Your task to perform on an android device: Go to Reddit.com Image 0: 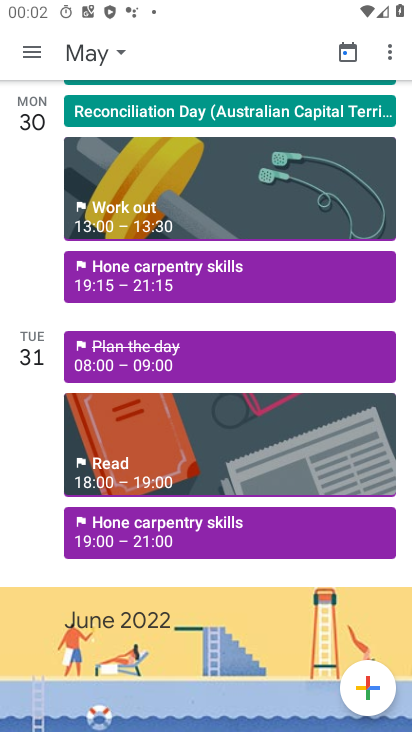
Step 0: press home button
Your task to perform on an android device: Go to Reddit.com Image 1: 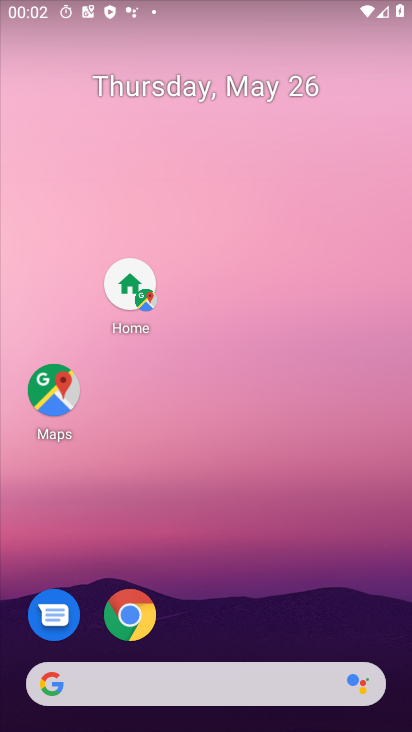
Step 1: click (57, 684)
Your task to perform on an android device: Go to Reddit.com Image 2: 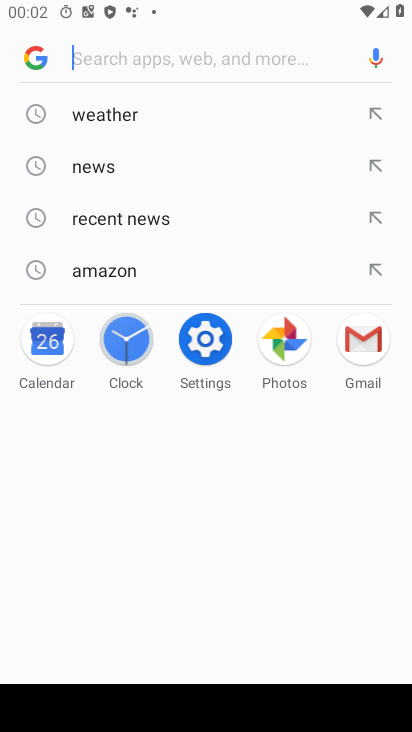
Step 2: type "Reddit.com"
Your task to perform on an android device: Go to Reddit.com Image 3: 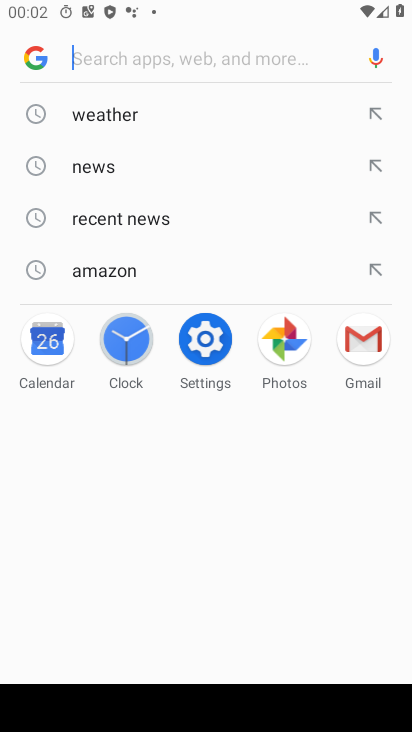
Step 3: click (133, 64)
Your task to perform on an android device: Go to Reddit.com Image 4: 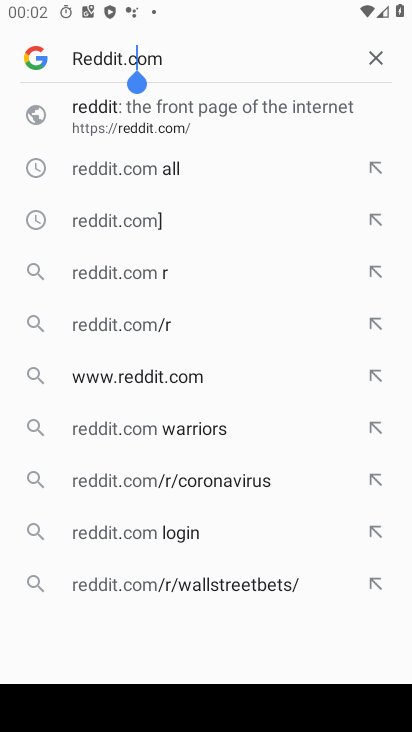
Step 4: click (161, 104)
Your task to perform on an android device: Go to Reddit.com Image 5: 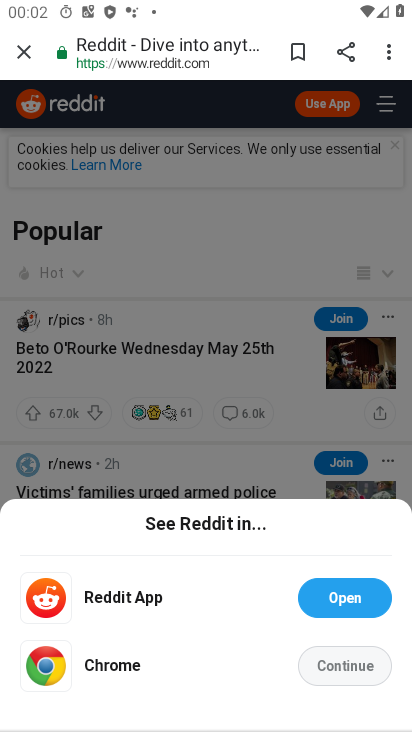
Step 5: task complete